Your task to perform on an android device: see creations saved in the google photos Image 0: 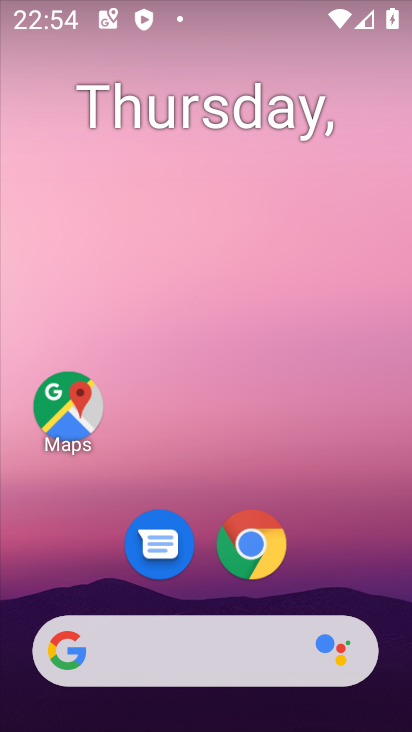
Step 0: drag from (336, 550) to (242, 60)
Your task to perform on an android device: see creations saved in the google photos Image 1: 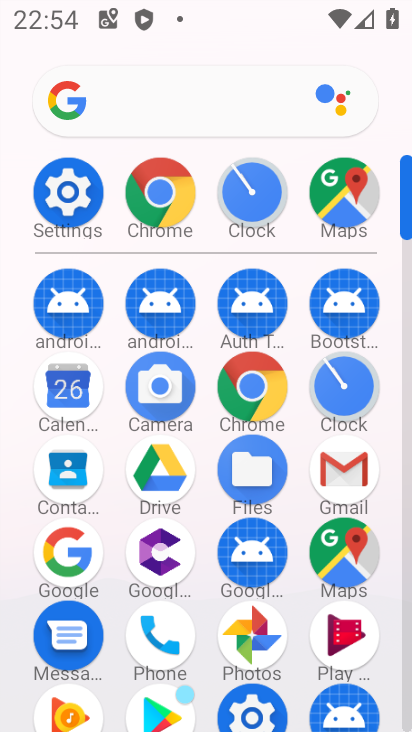
Step 1: drag from (14, 591) to (7, 260)
Your task to perform on an android device: see creations saved in the google photos Image 2: 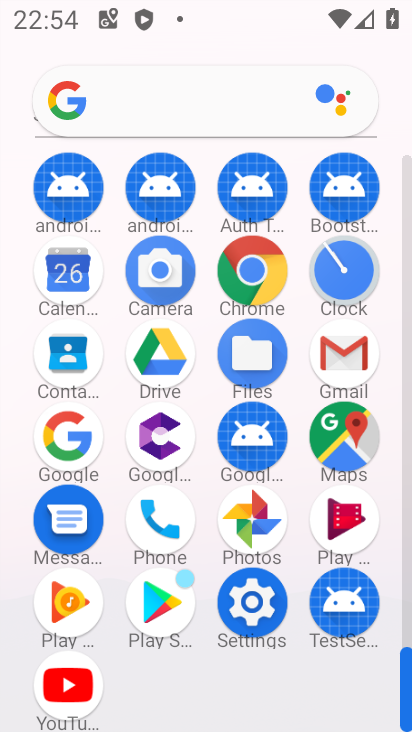
Step 2: click (248, 515)
Your task to perform on an android device: see creations saved in the google photos Image 3: 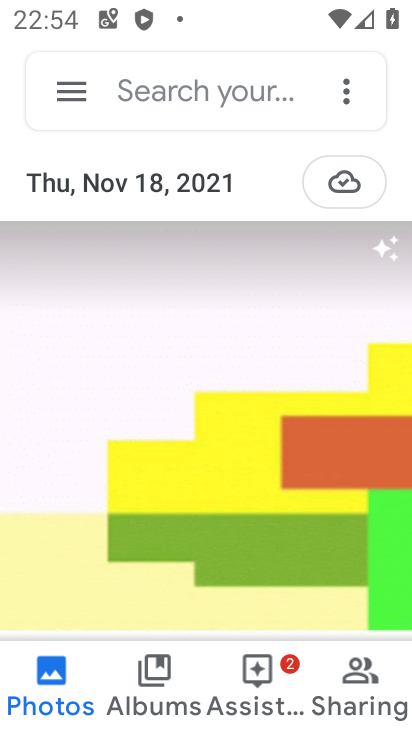
Step 3: task complete